Your task to perform on an android device: Open the phone app and click the voicemail tab. Image 0: 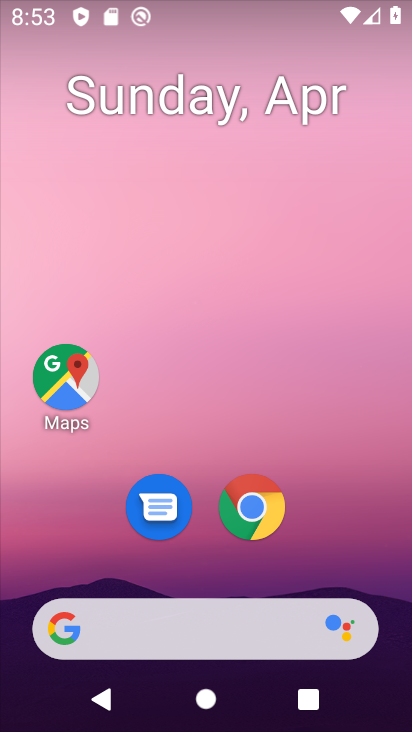
Step 0: drag from (164, 385) to (68, 20)
Your task to perform on an android device: Open the phone app and click the voicemail tab. Image 1: 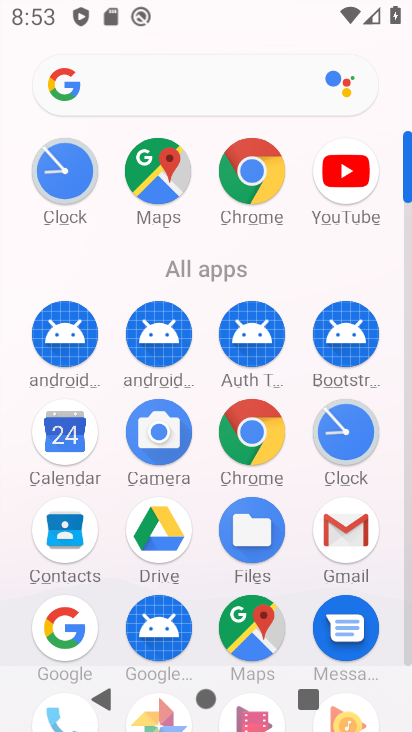
Step 1: drag from (369, 331) to (376, 170)
Your task to perform on an android device: Open the phone app and click the voicemail tab. Image 2: 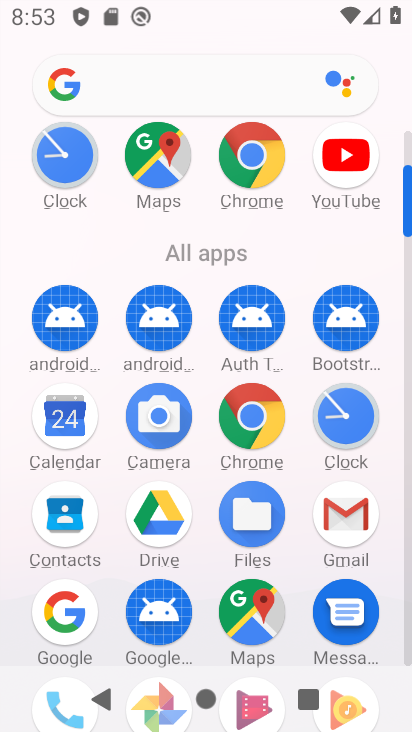
Step 2: drag from (282, 385) to (306, 92)
Your task to perform on an android device: Open the phone app and click the voicemail tab. Image 3: 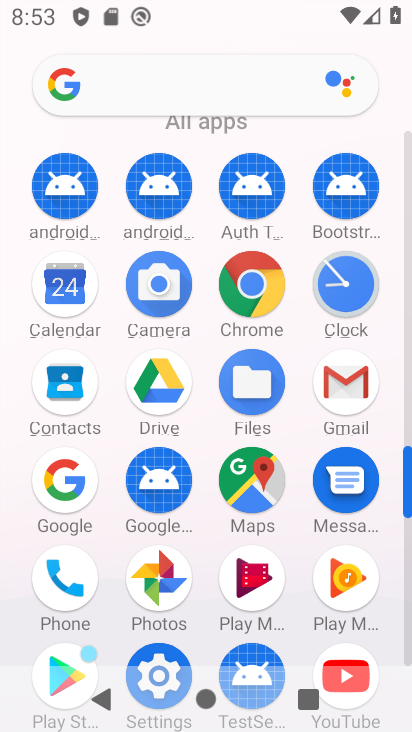
Step 3: click (55, 587)
Your task to perform on an android device: Open the phone app and click the voicemail tab. Image 4: 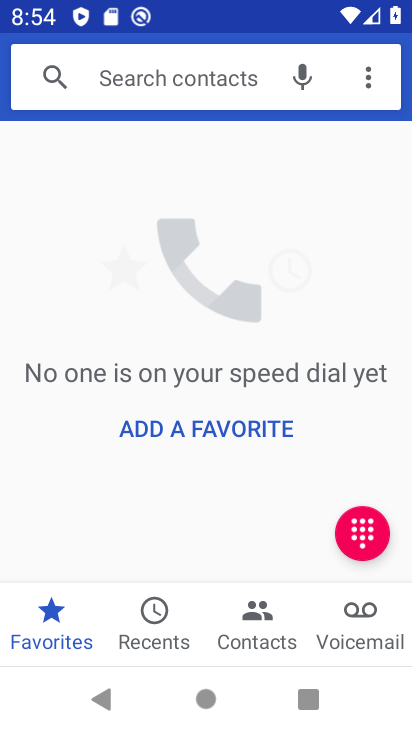
Step 4: click (382, 622)
Your task to perform on an android device: Open the phone app and click the voicemail tab. Image 5: 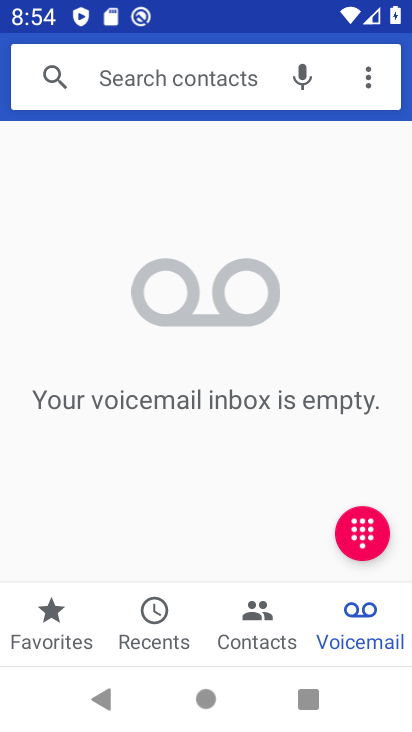
Step 5: task complete